Your task to perform on an android device: open app "Indeed Job Search" Image 0: 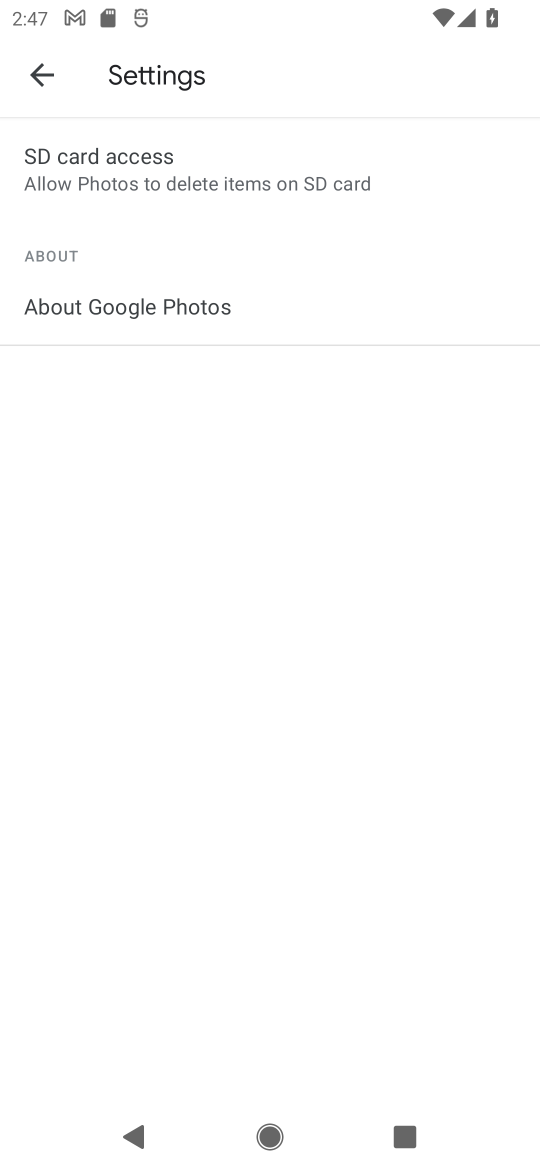
Step 0: press home button
Your task to perform on an android device: open app "Indeed Job Search" Image 1: 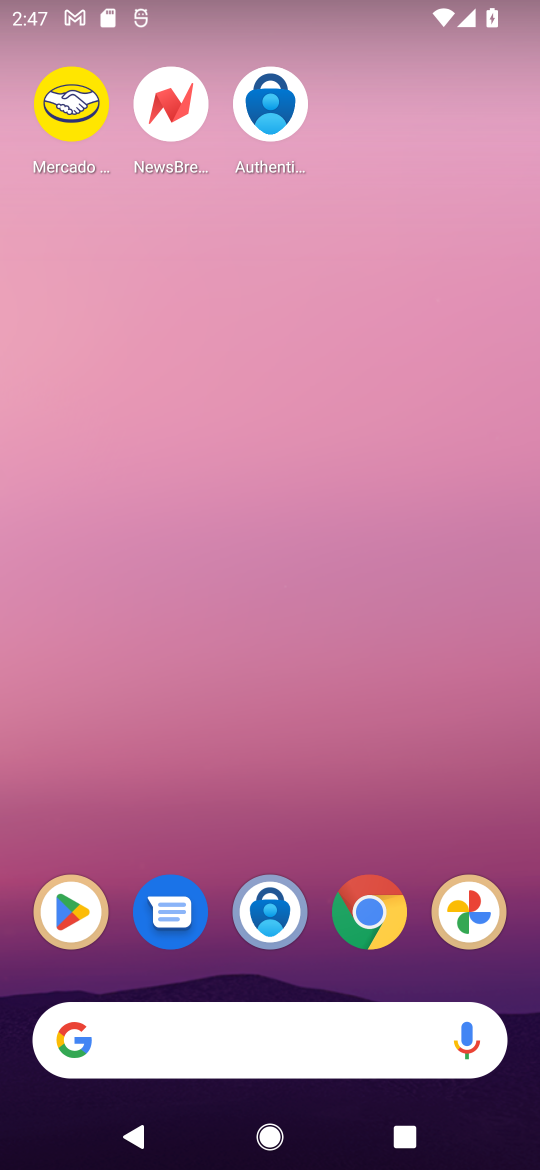
Step 1: click (59, 925)
Your task to perform on an android device: open app "Indeed Job Search" Image 2: 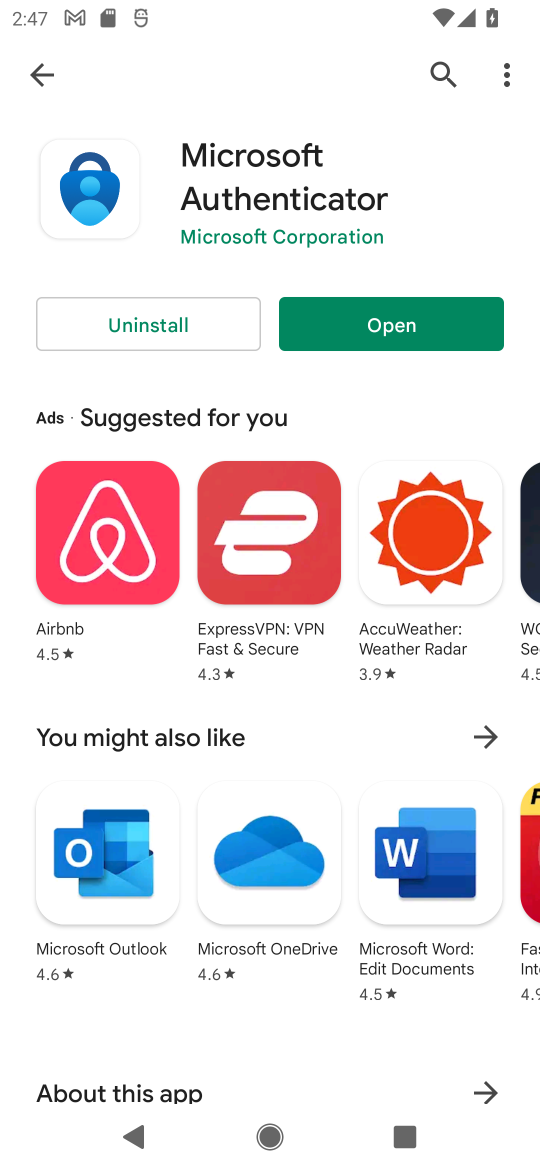
Step 2: click (443, 73)
Your task to perform on an android device: open app "Indeed Job Search" Image 3: 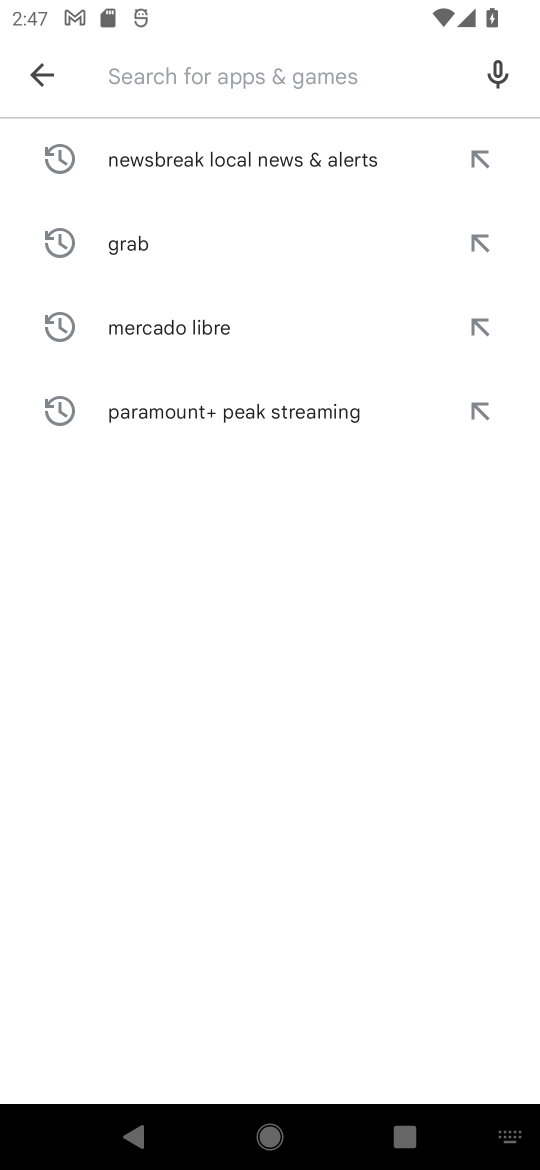
Step 3: type "Indeed Job Search"
Your task to perform on an android device: open app "Indeed Job Search" Image 4: 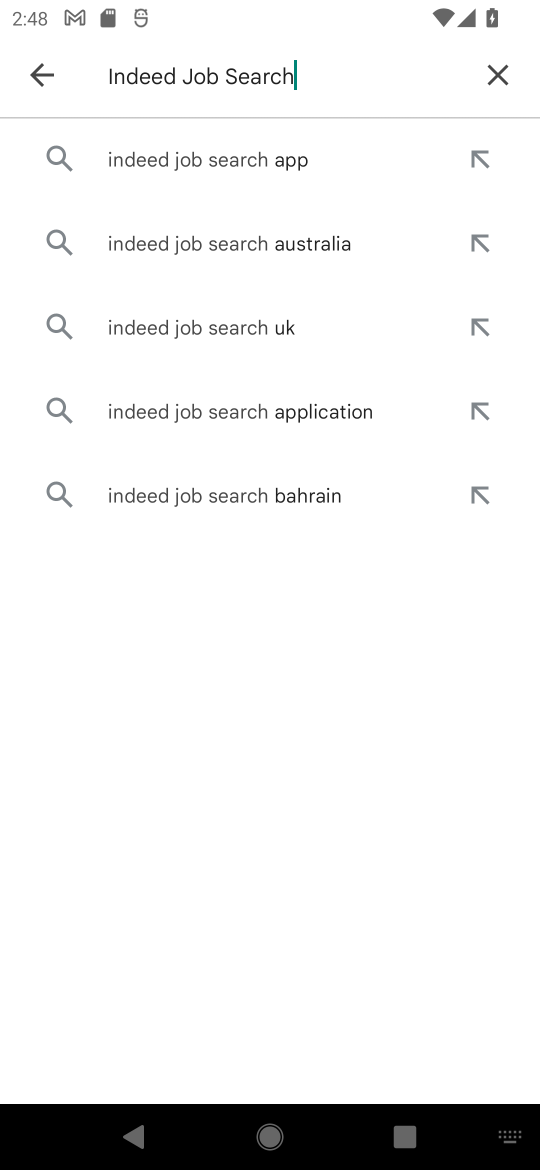
Step 4: click (236, 158)
Your task to perform on an android device: open app "Indeed Job Search" Image 5: 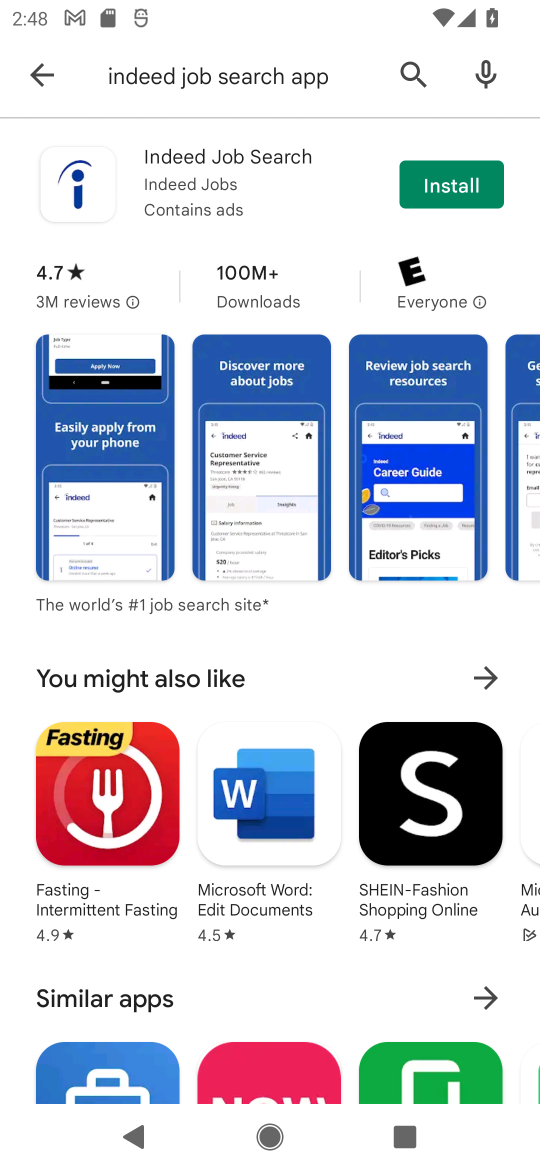
Step 5: task complete